Your task to perform on an android device: Open Google Chrome and click the shortcut for Amazon.com Image 0: 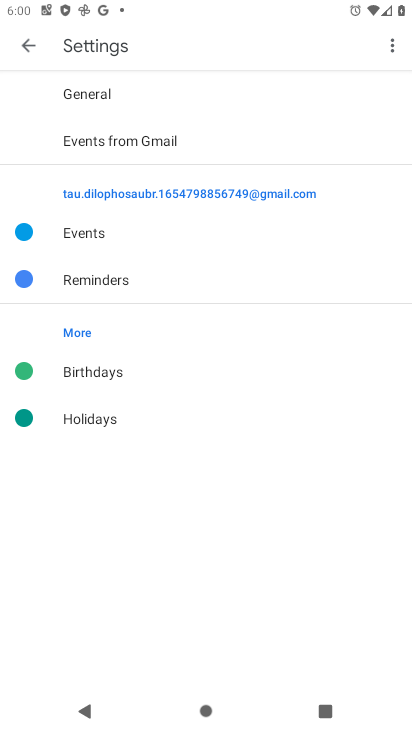
Step 0: press home button
Your task to perform on an android device: Open Google Chrome and click the shortcut for Amazon.com Image 1: 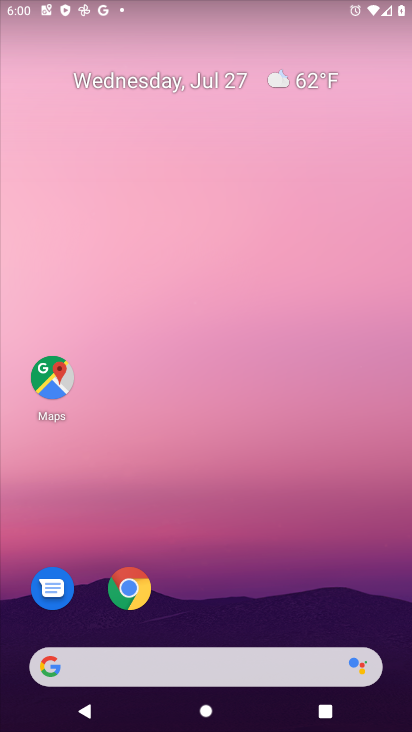
Step 1: click (125, 585)
Your task to perform on an android device: Open Google Chrome and click the shortcut for Amazon.com Image 2: 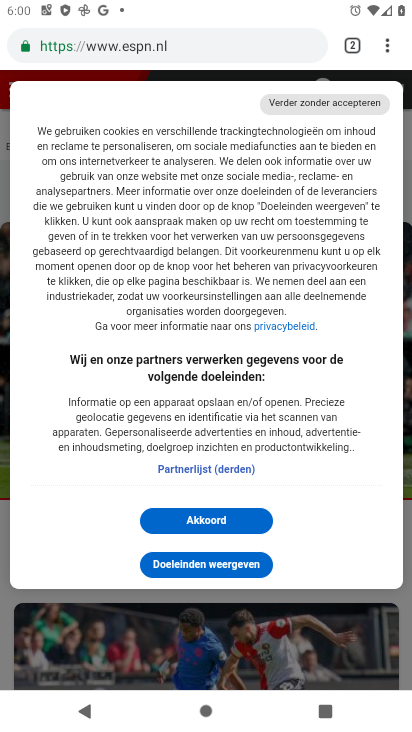
Step 2: click (141, 41)
Your task to perform on an android device: Open Google Chrome and click the shortcut for Amazon.com Image 3: 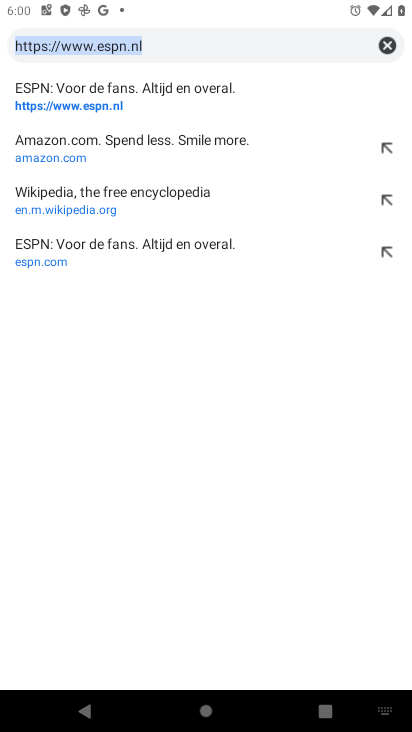
Step 3: click (83, 145)
Your task to perform on an android device: Open Google Chrome and click the shortcut for Amazon.com Image 4: 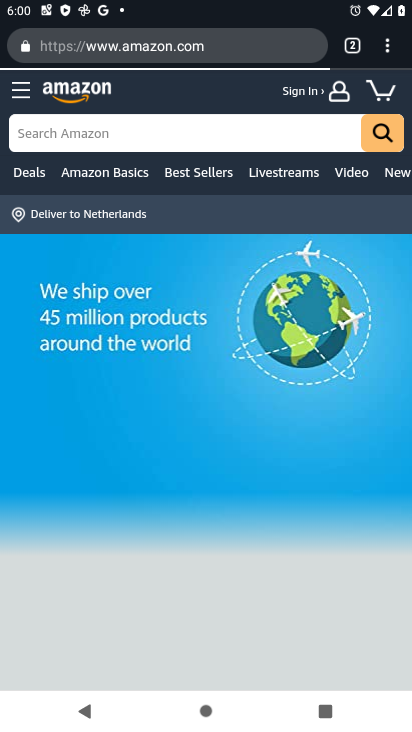
Step 4: task complete